Your task to perform on an android device: toggle sleep mode Image 0: 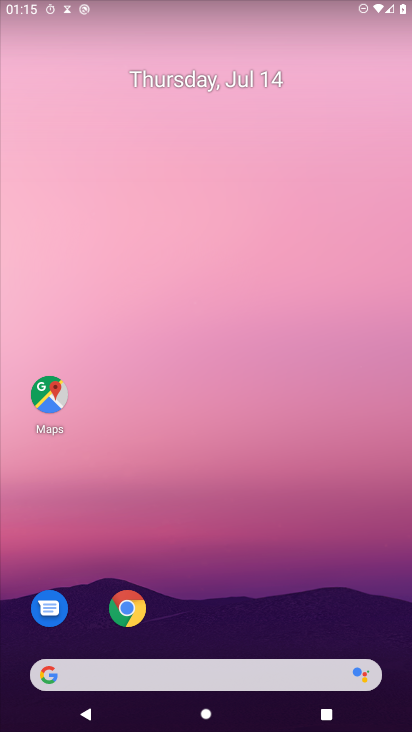
Step 0: press home button
Your task to perform on an android device: toggle sleep mode Image 1: 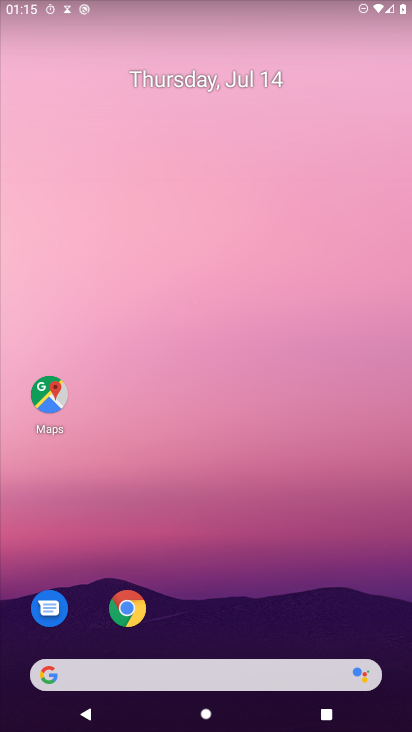
Step 1: drag from (298, 626) to (280, 100)
Your task to perform on an android device: toggle sleep mode Image 2: 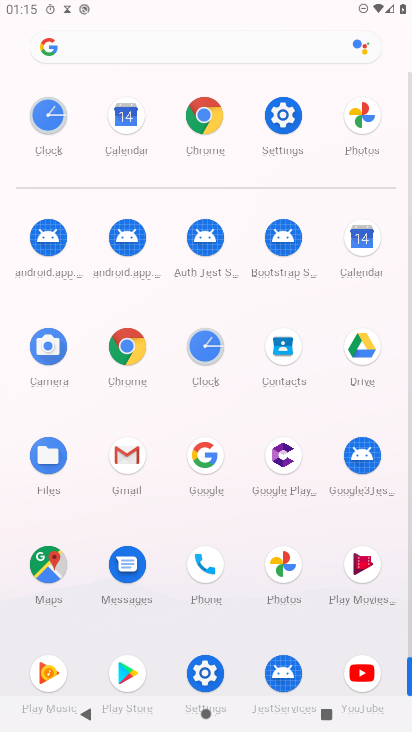
Step 2: click (288, 124)
Your task to perform on an android device: toggle sleep mode Image 3: 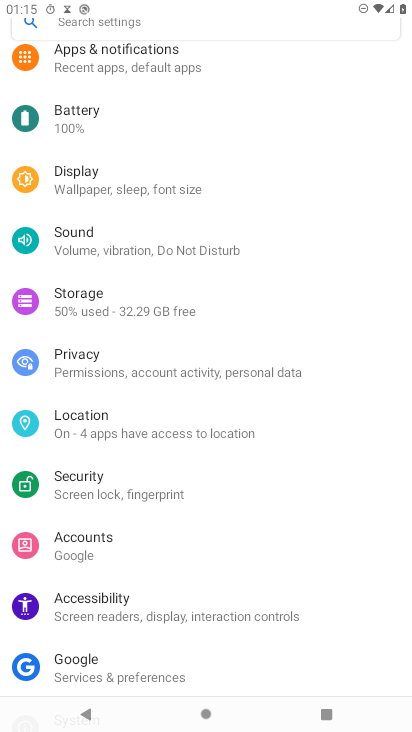
Step 3: click (118, 192)
Your task to perform on an android device: toggle sleep mode Image 4: 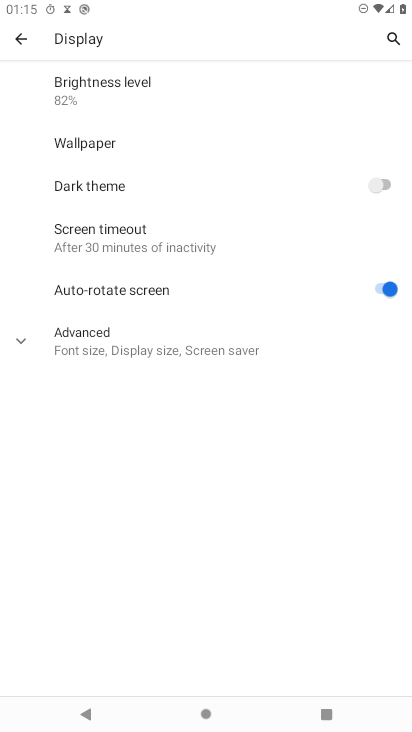
Step 4: click (30, 341)
Your task to perform on an android device: toggle sleep mode Image 5: 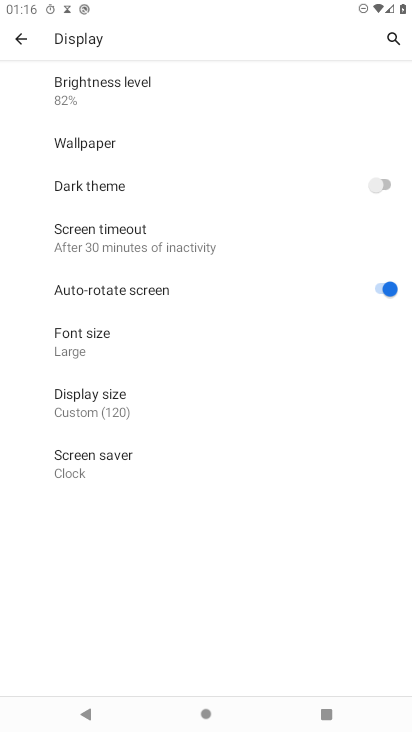
Step 5: task complete